Your task to perform on an android device: Add razer nari to the cart on newegg.com Image 0: 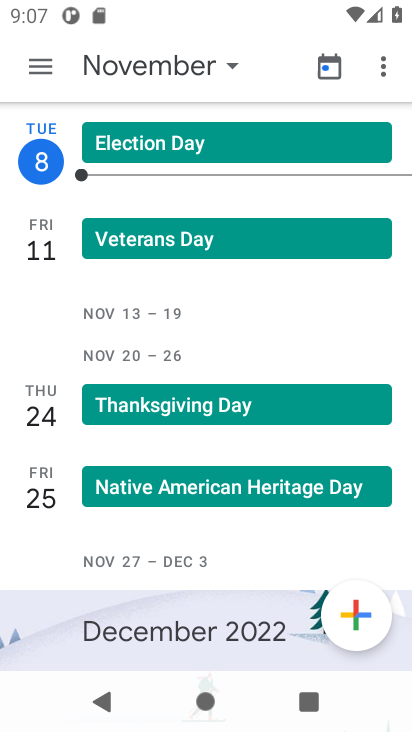
Step 0: press home button
Your task to perform on an android device: Add razer nari to the cart on newegg.com Image 1: 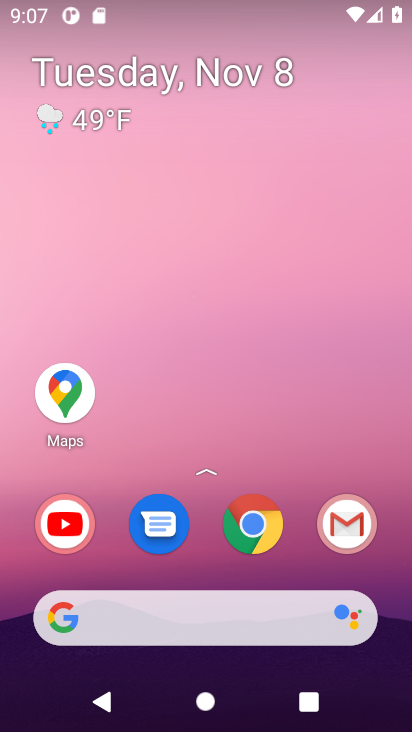
Step 1: click (254, 523)
Your task to perform on an android device: Add razer nari to the cart on newegg.com Image 2: 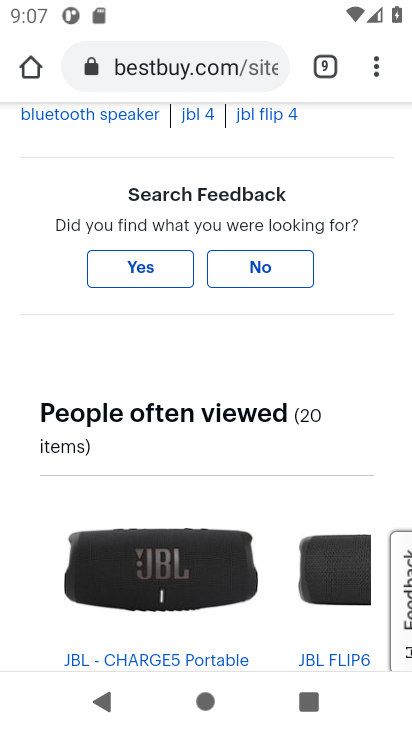
Step 2: click (175, 64)
Your task to perform on an android device: Add razer nari to the cart on newegg.com Image 3: 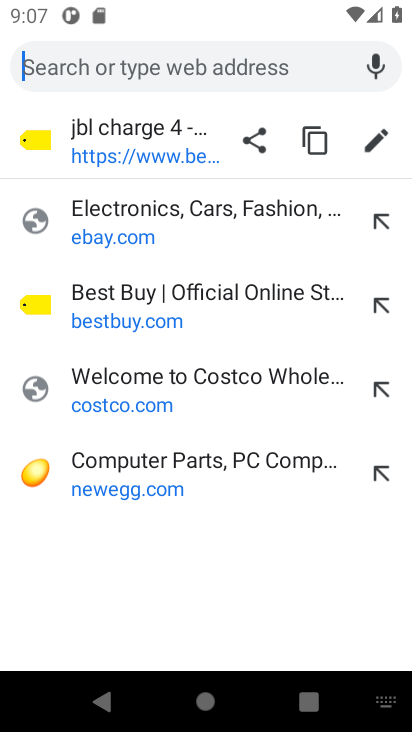
Step 3: click (142, 472)
Your task to perform on an android device: Add razer nari to the cart on newegg.com Image 4: 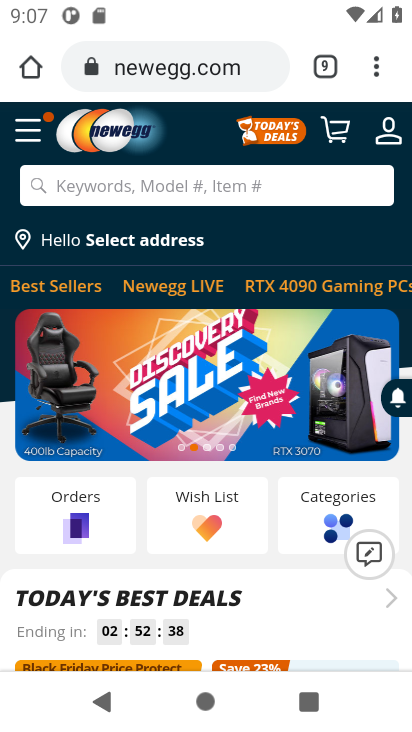
Step 4: click (211, 186)
Your task to perform on an android device: Add razer nari to the cart on newegg.com Image 5: 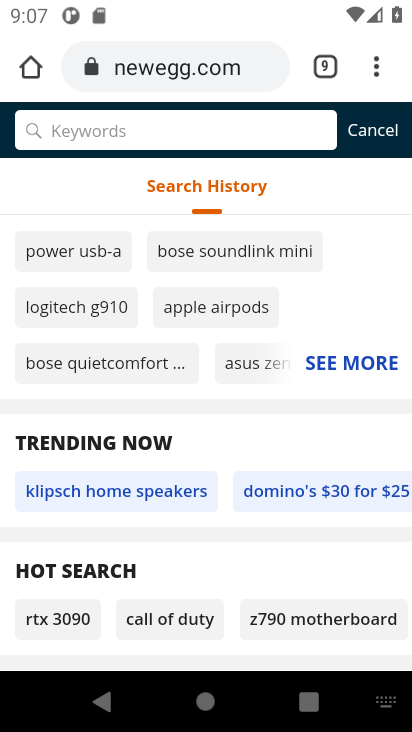
Step 5: type "razer nari"
Your task to perform on an android device: Add razer nari to the cart on newegg.com Image 6: 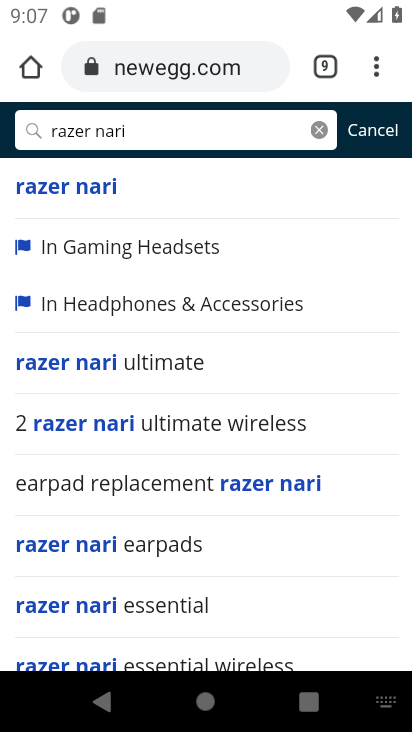
Step 6: click (75, 194)
Your task to perform on an android device: Add razer nari to the cart on newegg.com Image 7: 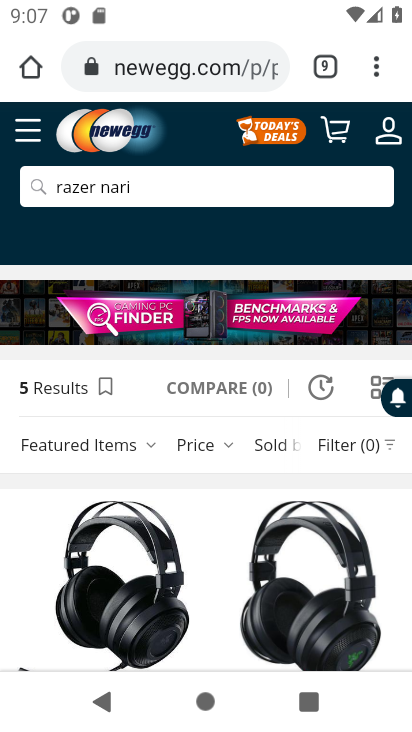
Step 7: drag from (182, 513) to (166, 251)
Your task to perform on an android device: Add razer nari to the cart on newegg.com Image 8: 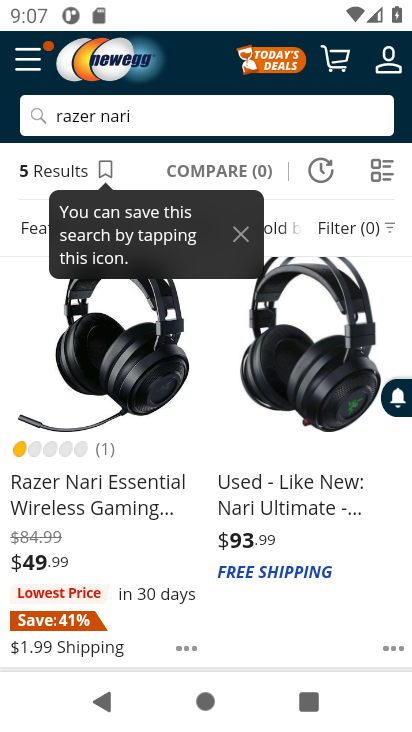
Step 8: drag from (89, 486) to (81, 405)
Your task to perform on an android device: Add razer nari to the cart on newegg.com Image 9: 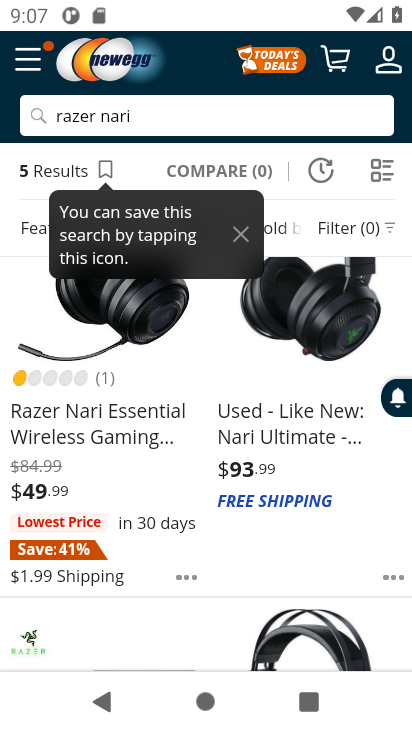
Step 9: click (84, 325)
Your task to perform on an android device: Add razer nari to the cart on newegg.com Image 10: 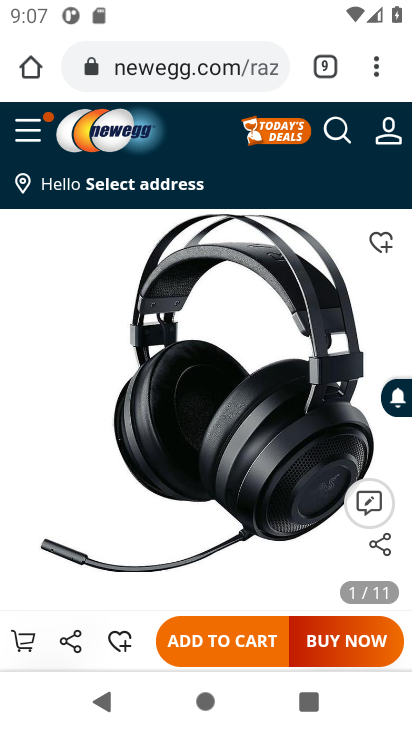
Step 10: click (211, 643)
Your task to perform on an android device: Add razer nari to the cart on newegg.com Image 11: 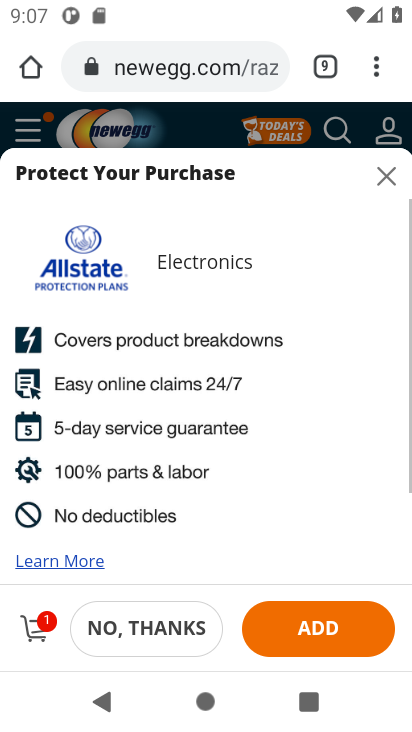
Step 11: task complete